Your task to perform on an android device: turn smart compose on in the gmail app Image 0: 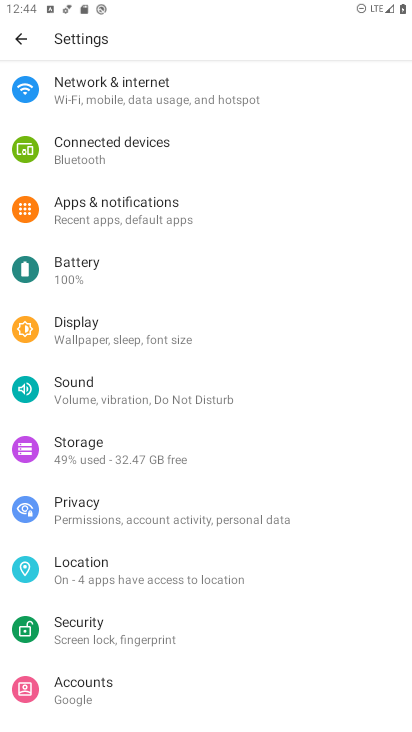
Step 0: press home button
Your task to perform on an android device: turn smart compose on in the gmail app Image 1: 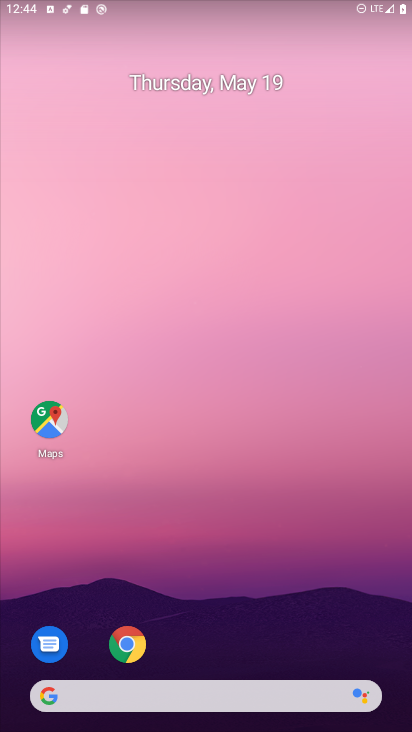
Step 1: drag from (324, 635) to (215, 92)
Your task to perform on an android device: turn smart compose on in the gmail app Image 2: 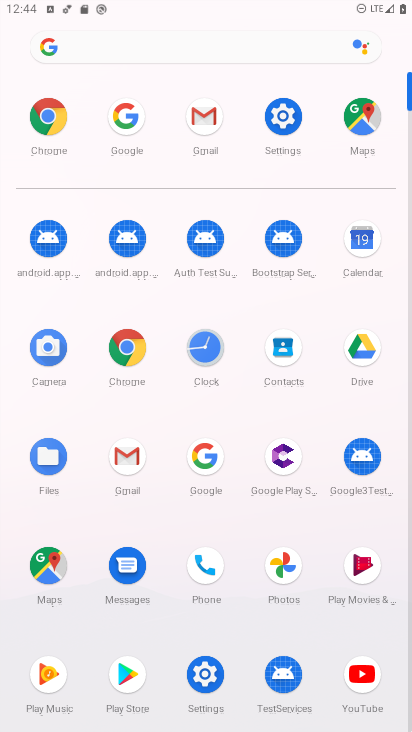
Step 2: click (128, 474)
Your task to perform on an android device: turn smart compose on in the gmail app Image 3: 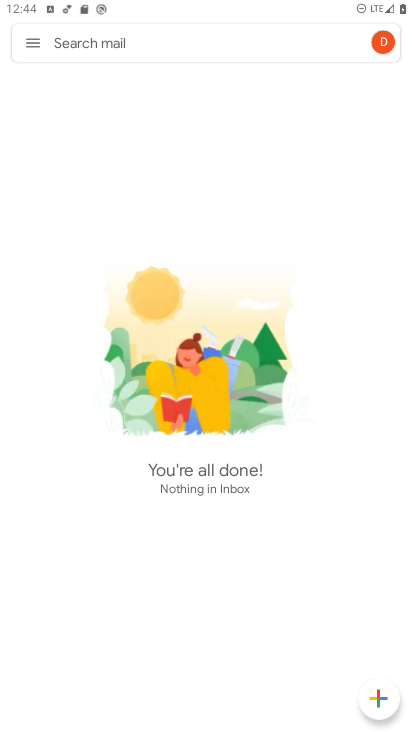
Step 3: click (28, 42)
Your task to perform on an android device: turn smart compose on in the gmail app Image 4: 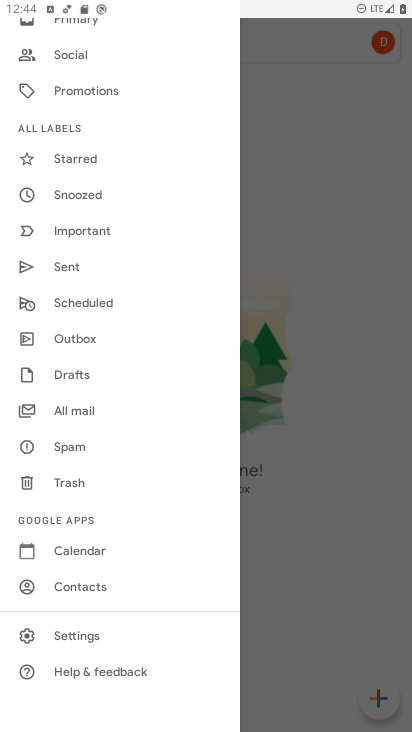
Step 4: click (54, 638)
Your task to perform on an android device: turn smart compose on in the gmail app Image 5: 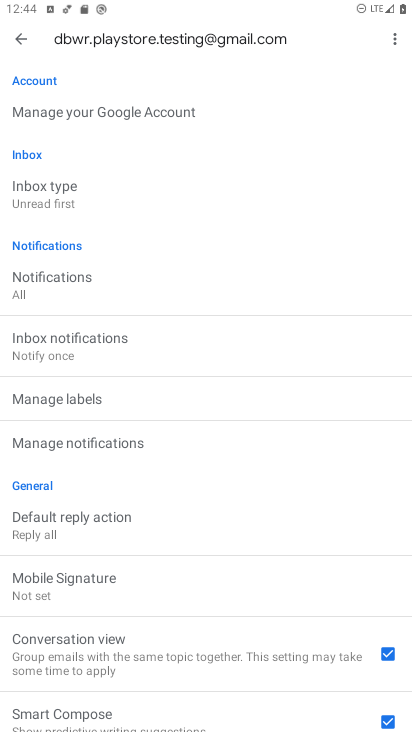
Step 5: task complete